Your task to perform on an android device: set the stopwatch Image 0: 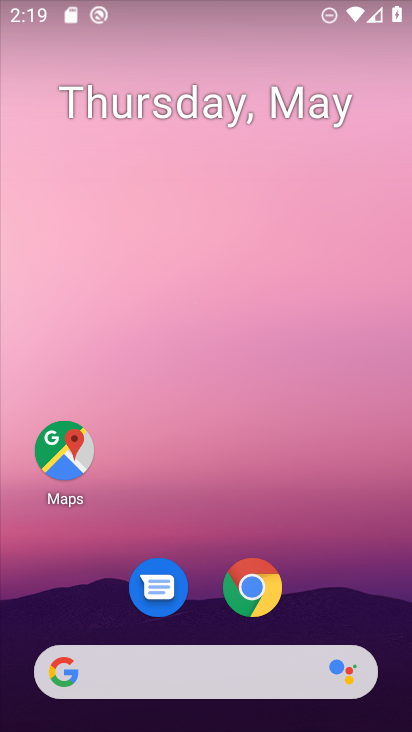
Step 0: drag from (329, 520) to (317, 112)
Your task to perform on an android device: set the stopwatch Image 1: 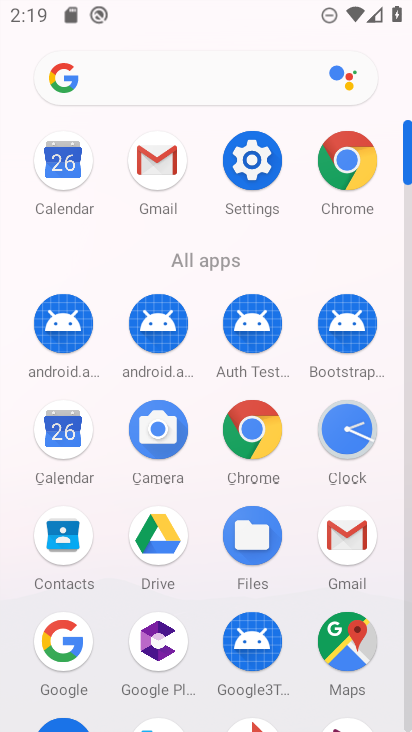
Step 1: click (346, 432)
Your task to perform on an android device: set the stopwatch Image 2: 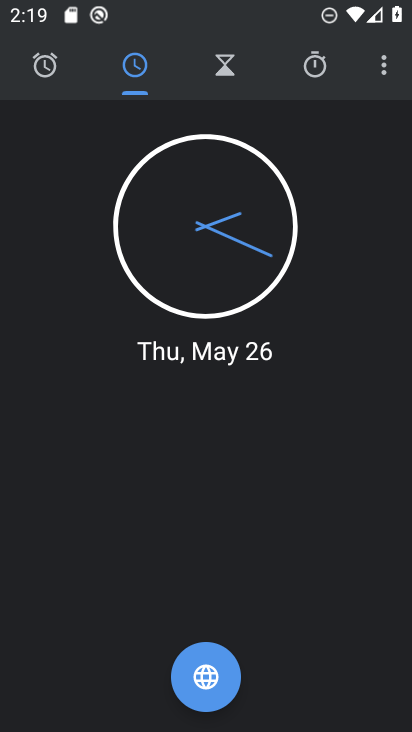
Step 2: click (314, 68)
Your task to perform on an android device: set the stopwatch Image 3: 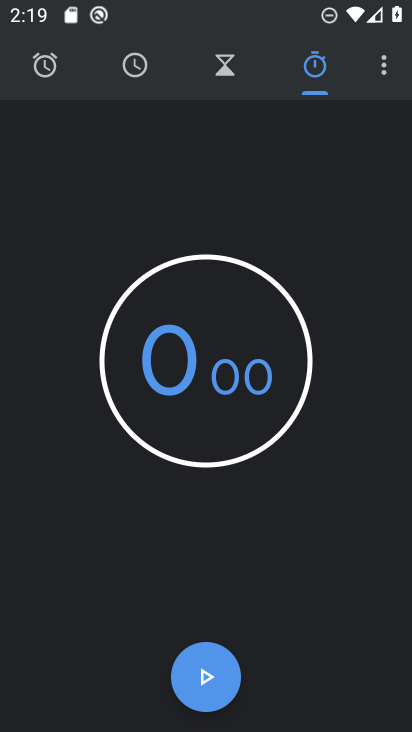
Step 3: click (200, 659)
Your task to perform on an android device: set the stopwatch Image 4: 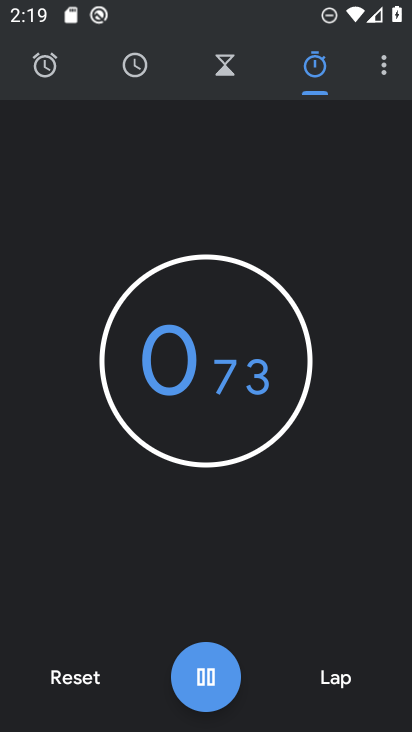
Step 4: click (209, 652)
Your task to perform on an android device: set the stopwatch Image 5: 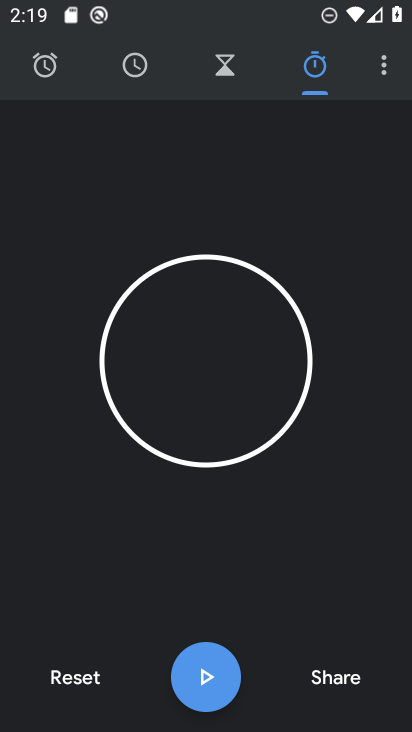
Step 5: task complete